Your task to perform on an android device: Open battery settings Image 0: 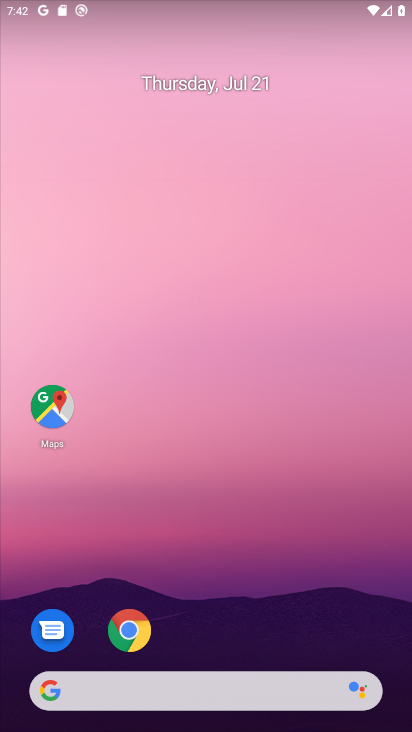
Step 0: drag from (227, 676) to (168, 35)
Your task to perform on an android device: Open battery settings Image 1: 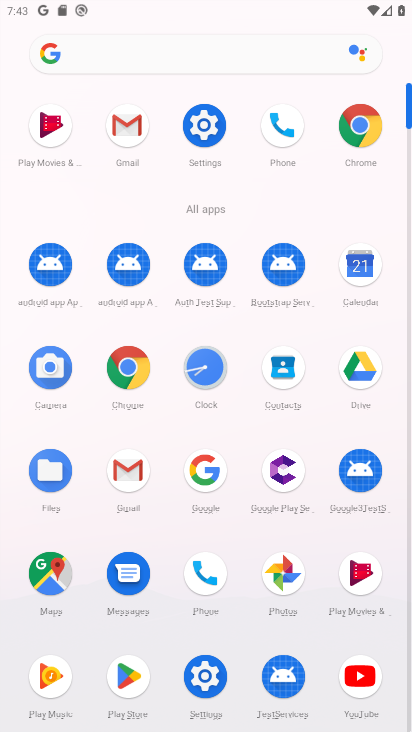
Step 1: click (214, 677)
Your task to perform on an android device: Open battery settings Image 2: 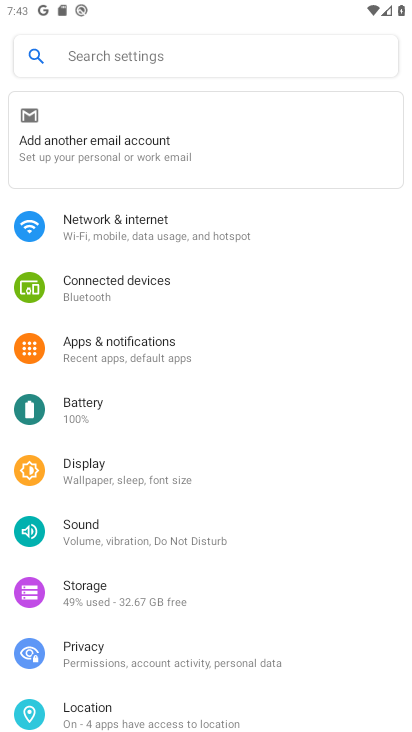
Step 2: click (70, 415)
Your task to perform on an android device: Open battery settings Image 3: 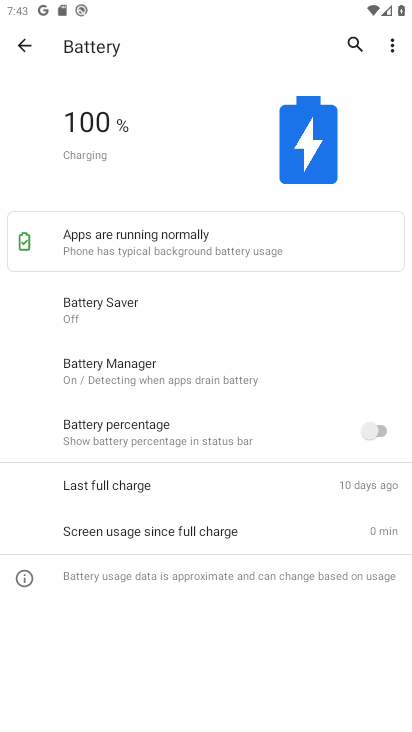
Step 3: task complete